Your task to perform on an android device: Open ESPN.com Image 0: 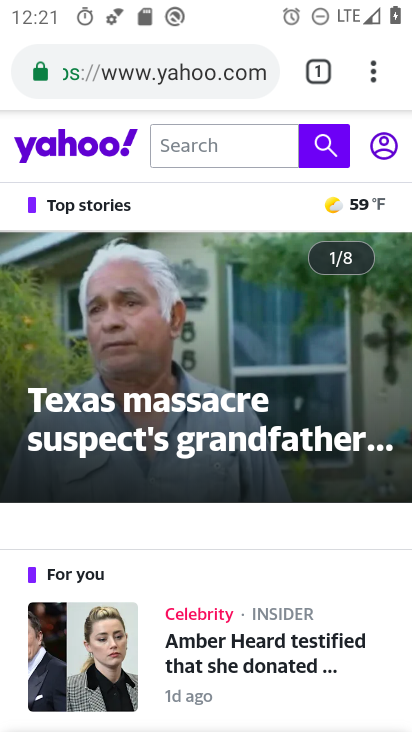
Step 0: click (164, 69)
Your task to perform on an android device: Open ESPN.com Image 1: 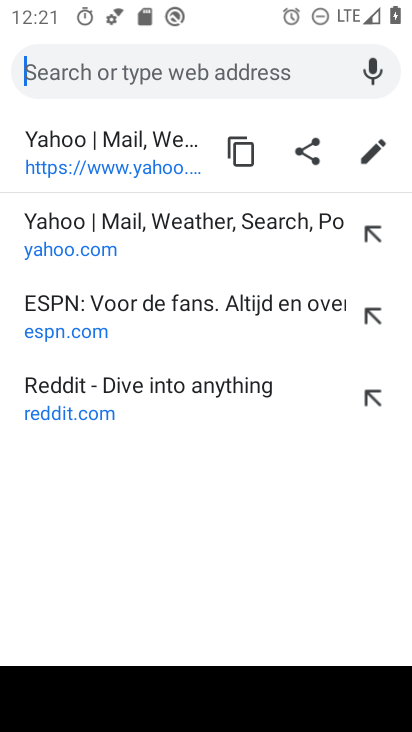
Step 1: click (96, 328)
Your task to perform on an android device: Open ESPN.com Image 2: 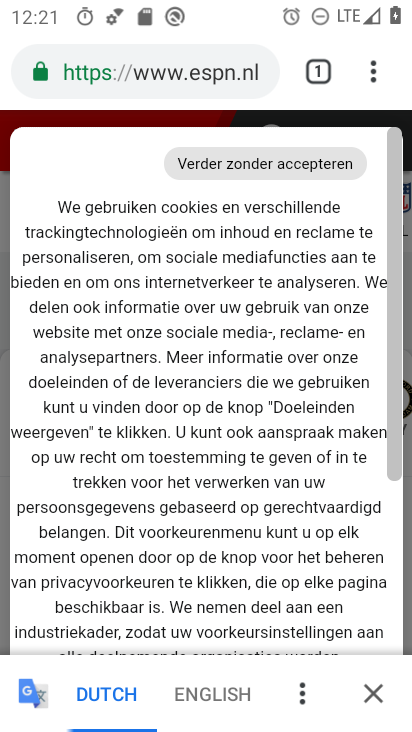
Step 2: task complete